Your task to perform on an android device: Is it going to rain tomorrow? Image 0: 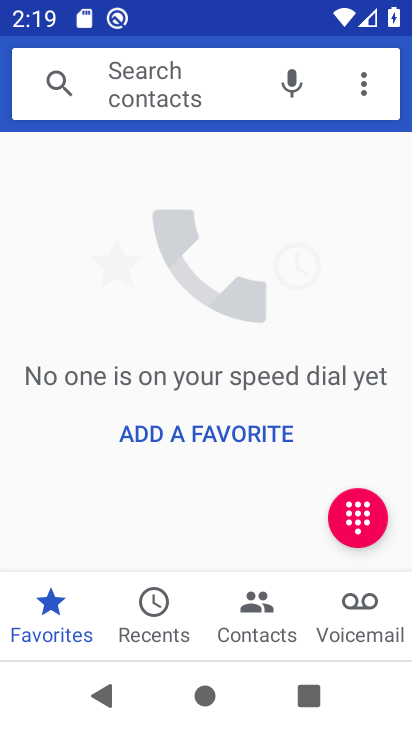
Step 0: press home button
Your task to perform on an android device: Is it going to rain tomorrow? Image 1: 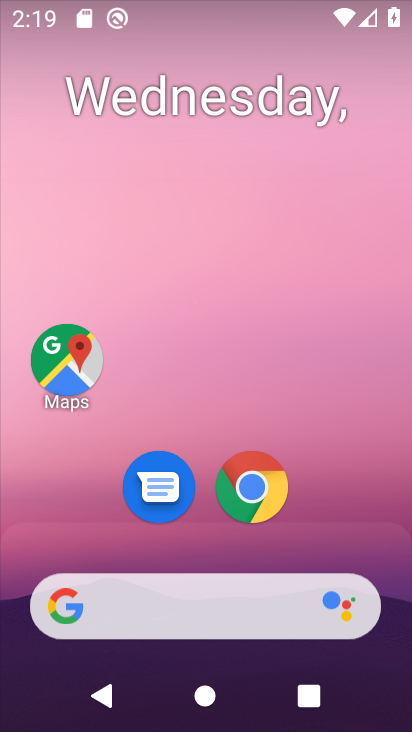
Step 1: click (202, 607)
Your task to perform on an android device: Is it going to rain tomorrow? Image 2: 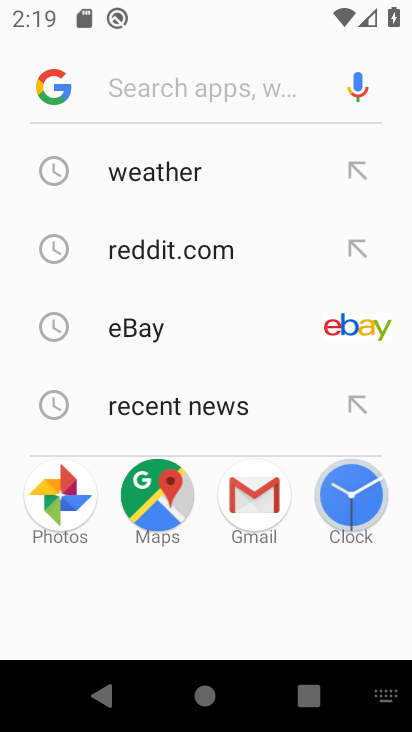
Step 2: type "Is it going to rain tomorrow?"
Your task to perform on an android device: Is it going to rain tomorrow? Image 3: 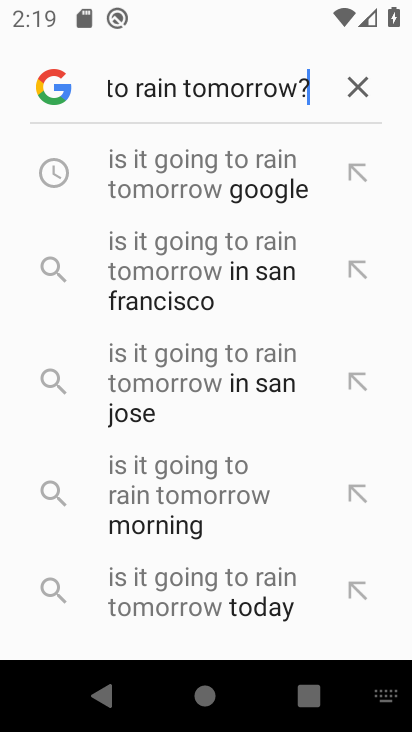
Step 3: click (241, 173)
Your task to perform on an android device: Is it going to rain tomorrow? Image 4: 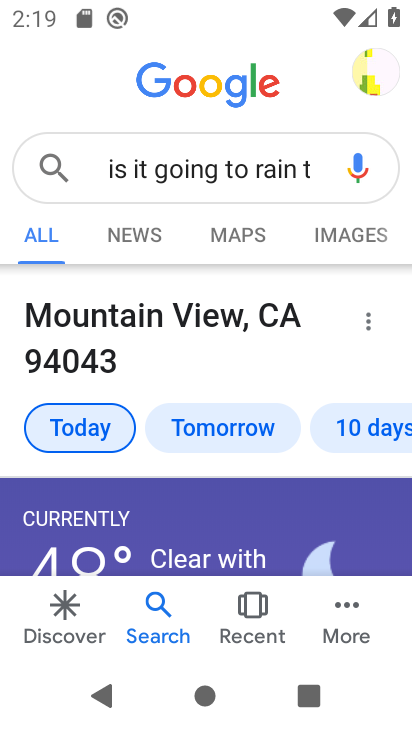
Step 4: task complete